Your task to perform on an android device: toggle show notifications on the lock screen Image 0: 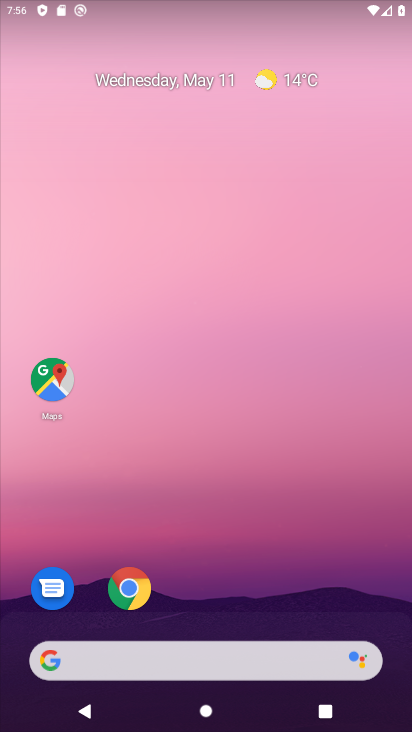
Step 0: drag from (214, 596) to (342, 119)
Your task to perform on an android device: toggle show notifications on the lock screen Image 1: 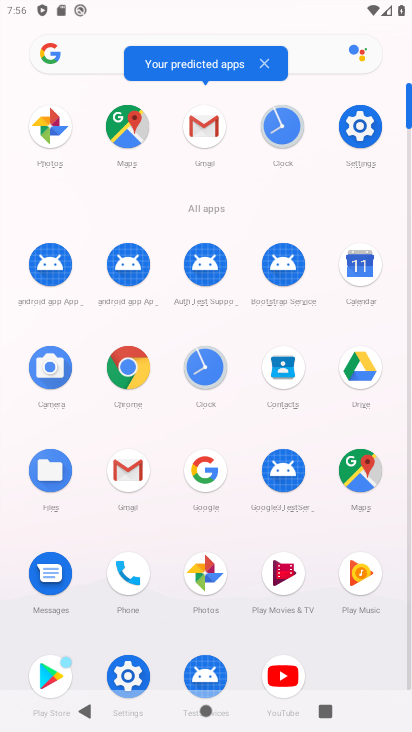
Step 1: click (365, 134)
Your task to perform on an android device: toggle show notifications on the lock screen Image 2: 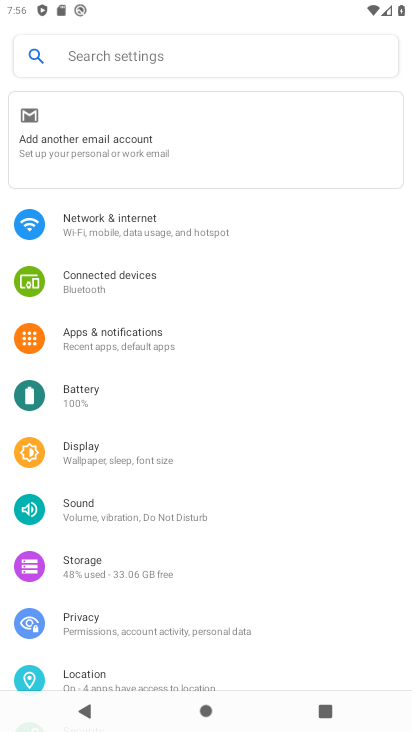
Step 2: click (169, 335)
Your task to perform on an android device: toggle show notifications on the lock screen Image 3: 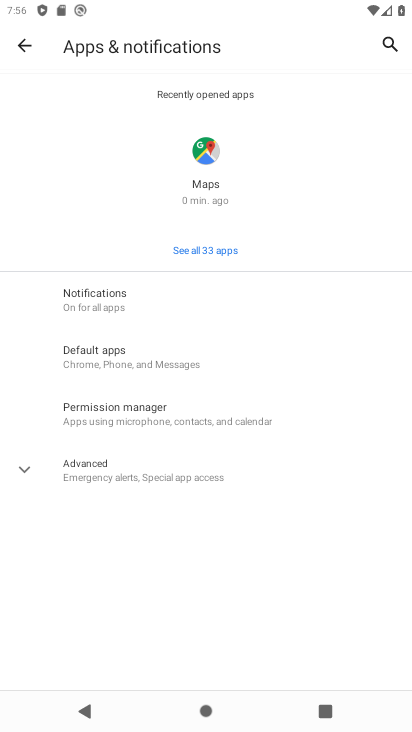
Step 3: click (157, 313)
Your task to perform on an android device: toggle show notifications on the lock screen Image 4: 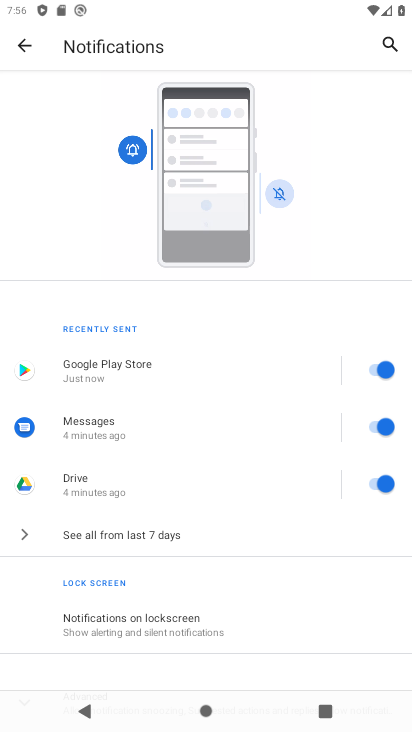
Step 4: click (182, 633)
Your task to perform on an android device: toggle show notifications on the lock screen Image 5: 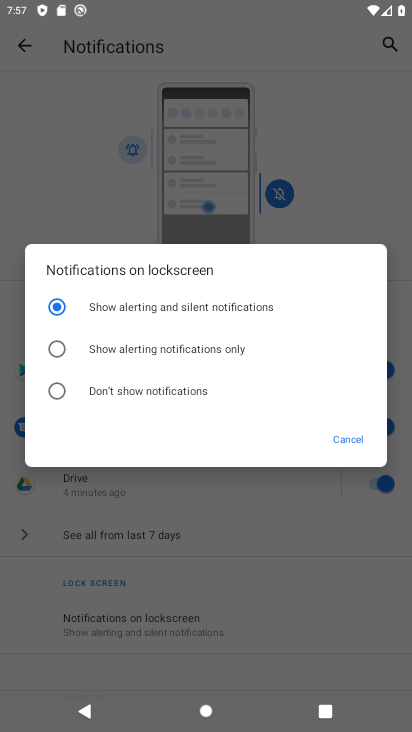
Step 5: click (161, 393)
Your task to perform on an android device: toggle show notifications on the lock screen Image 6: 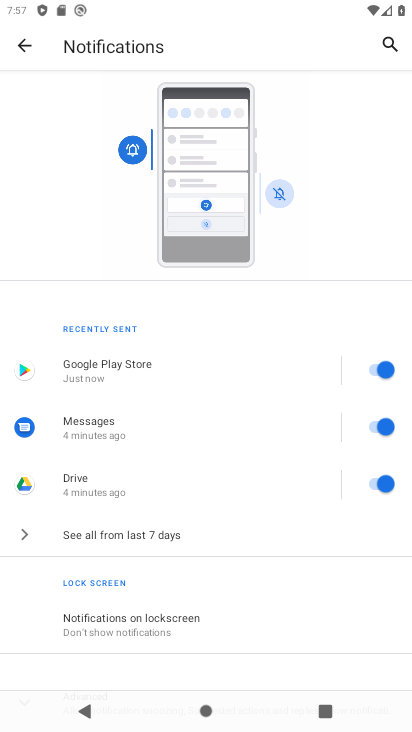
Step 6: task complete